Your task to perform on an android device: Go to Maps Image 0: 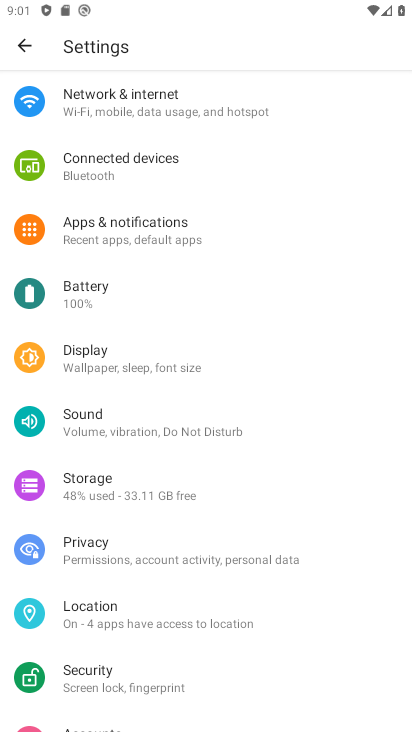
Step 0: press home button
Your task to perform on an android device: Go to Maps Image 1: 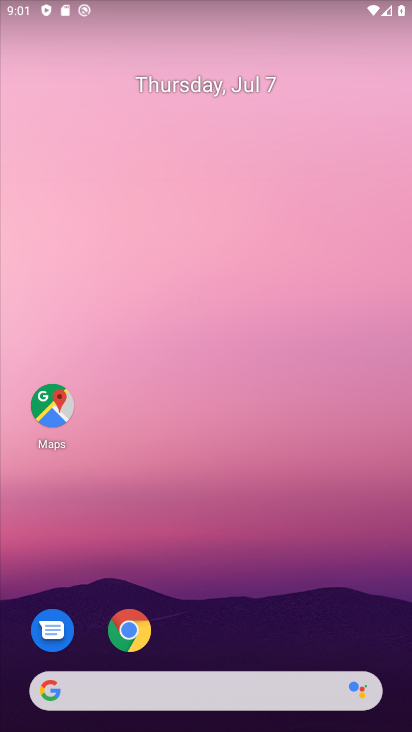
Step 1: click (57, 407)
Your task to perform on an android device: Go to Maps Image 2: 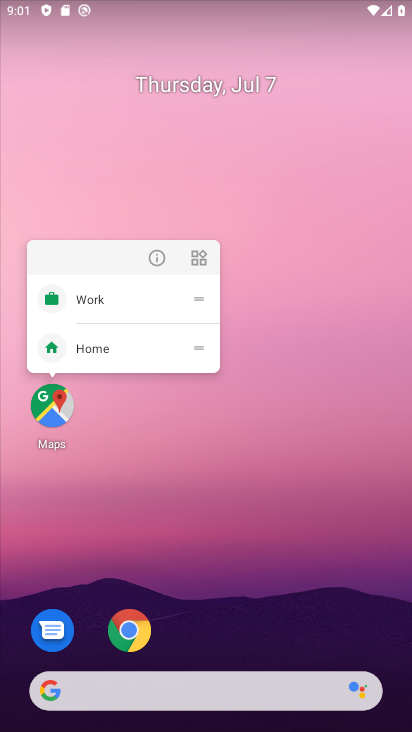
Step 2: click (56, 407)
Your task to perform on an android device: Go to Maps Image 3: 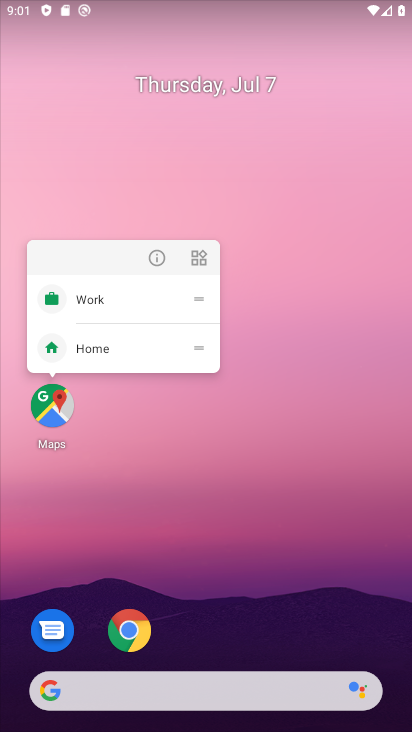
Step 3: click (56, 407)
Your task to perform on an android device: Go to Maps Image 4: 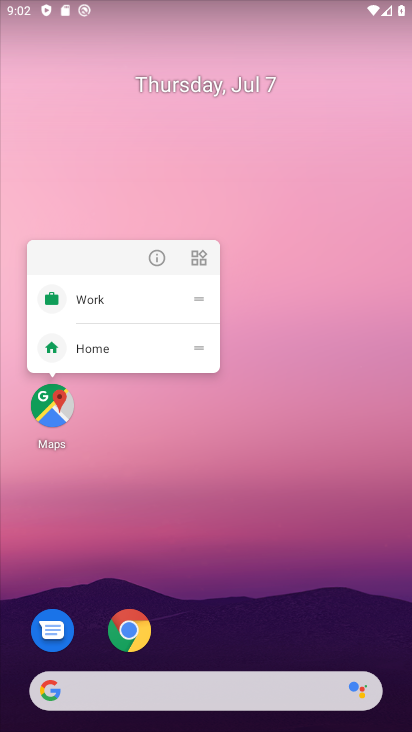
Step 4: click (48, 409)
Your task to perform on an android device: Go to Maps Image 5: 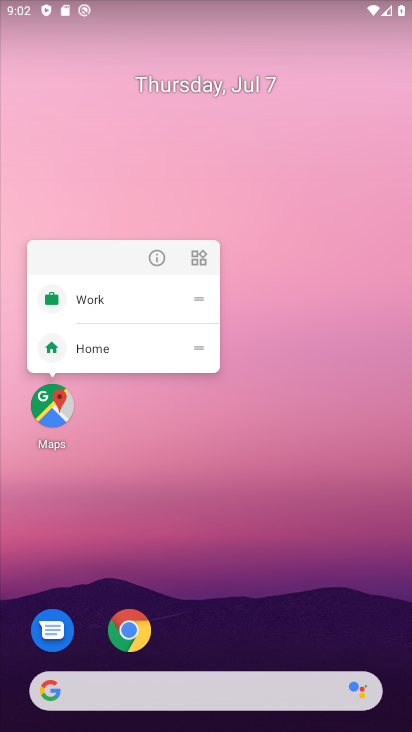
Step 5: click (48, 410)
Your task to perform on an android device: Go to Maps Image 6: 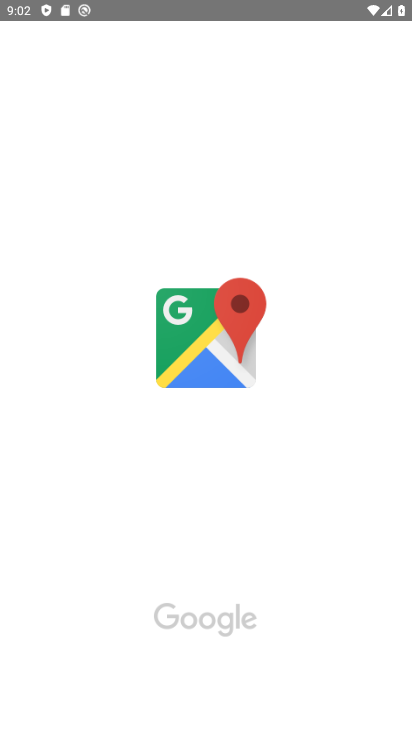
Step 6: click (48, 410)
Your task to perform on an android device: Go to Maps Image 7: 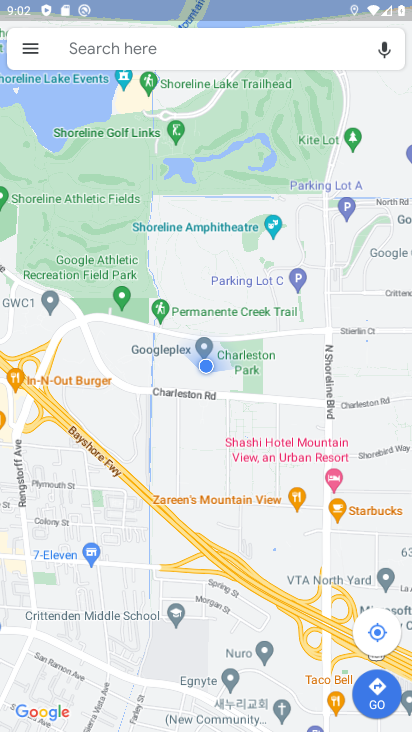
Step 7: task complete